Your task to perform on an android device: empty trash in the gmail app Image 0: 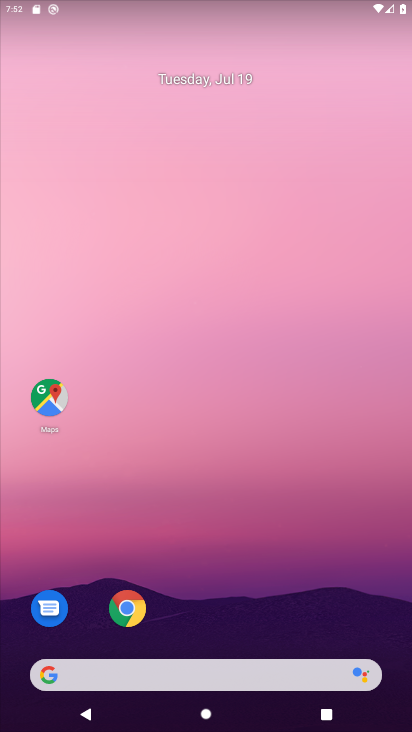
Step 0: drag from (204, 668) to (203, 132)
Your task to perform on an android device: empty trash in the gmail app Image 1: 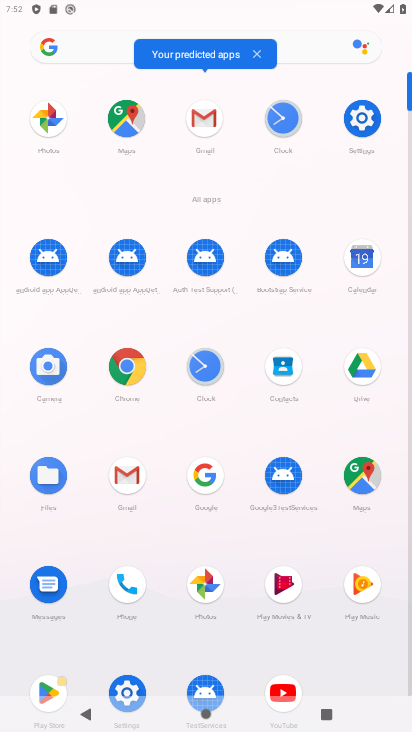
Step 1: click (116, 478)
Your task to perform on an android device: empty trash in the gmail app Image 2: 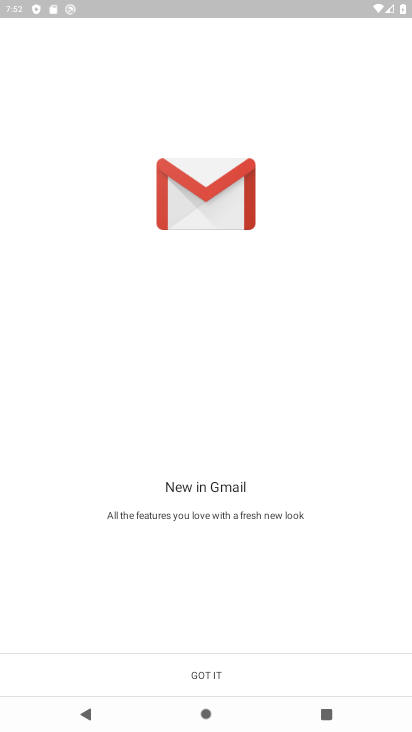
Step 2: click (208, 677)
Your task to perform on an android device: empty trash in the gmail app Image 3: 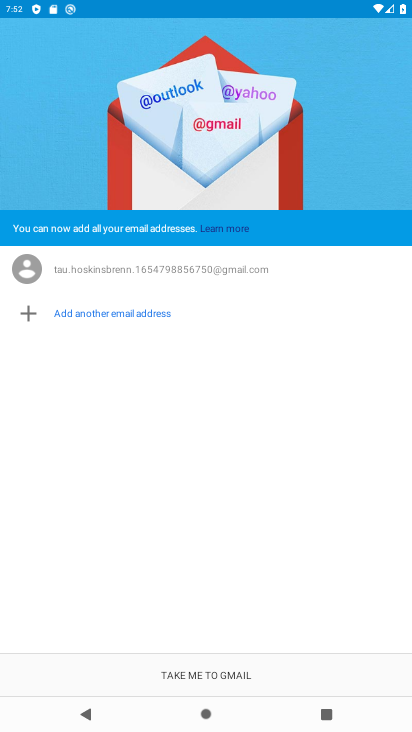
Step 3: click (207, 670)
Your task to perform on an android device: empty trash in the gmail app Image 4: 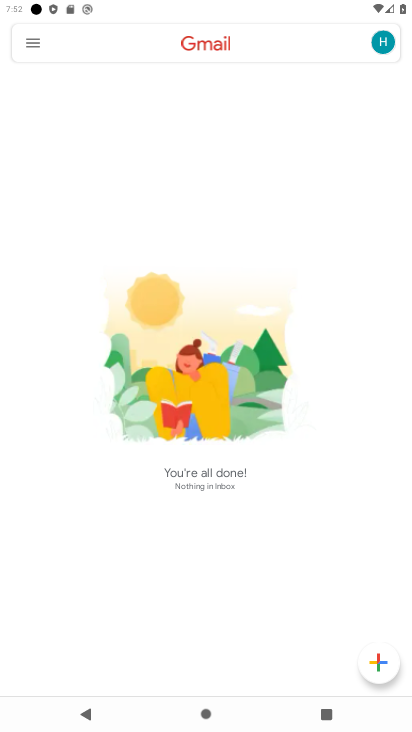
Step 4: click (43, 53)
Your task to perform on an android device: empty trash in the gmail app Image 5: 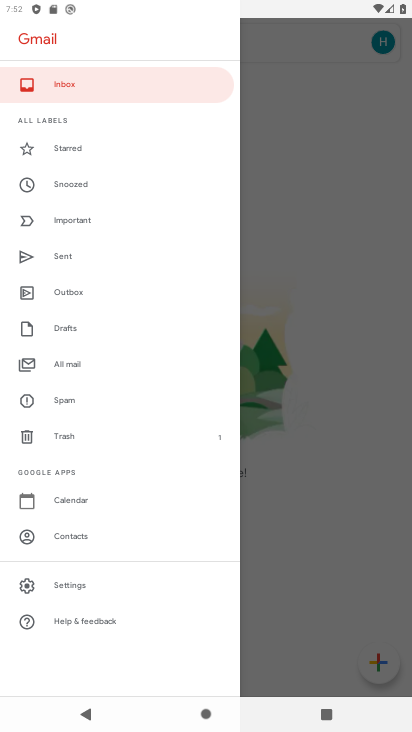
Step 5: click (77, 432)
Your task to perform on an android device: empty trash in the gmail app Image 6: 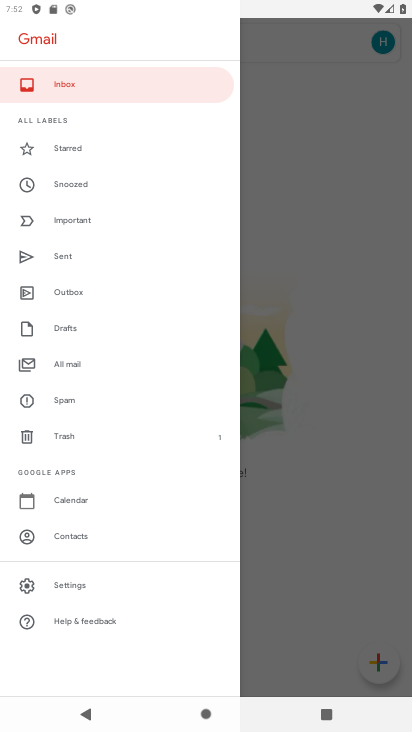
Step 6: click (77, 432)
Your task to perform on an android device: empty trash in the gmail app Image 7: 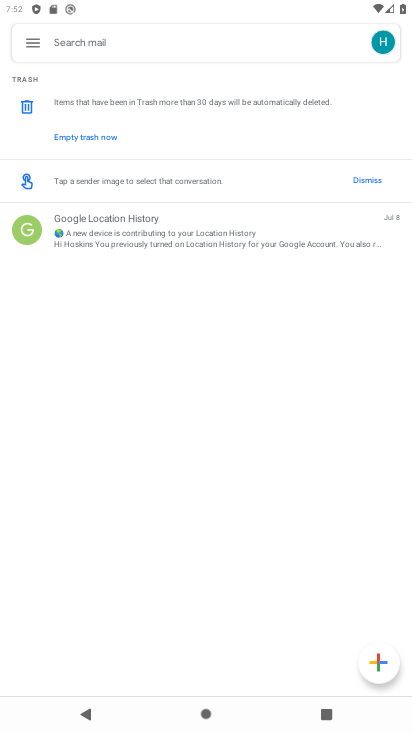
Step 7: click (67, 135)
Your task to perform on an android device: empty trash in the gmail app Image 8: 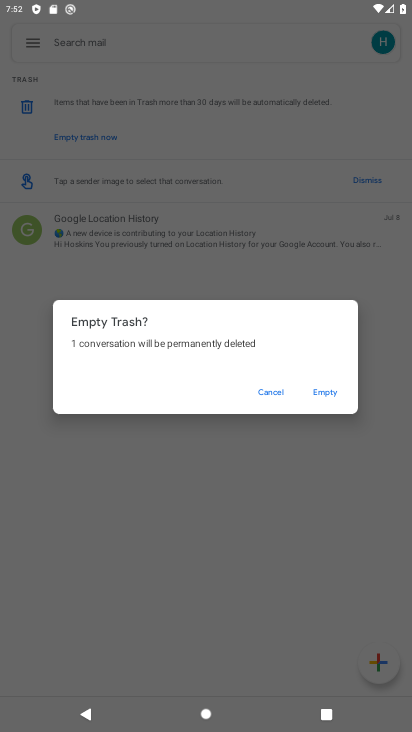
Step 8: click (325, 392)
Your task to perform on an android device: empty trash in the gmail app Image 9: 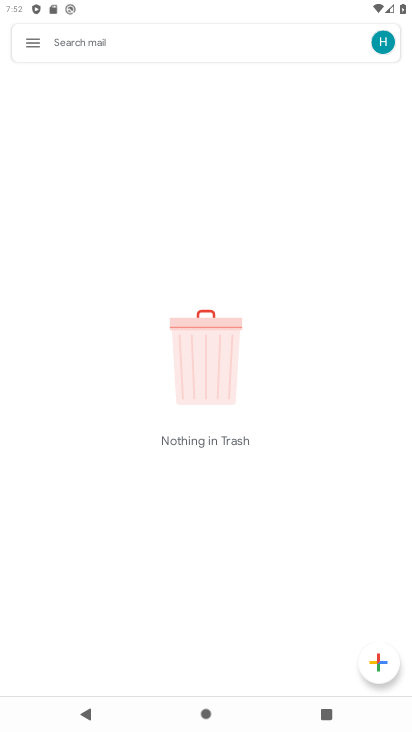
Step 9: task complete